Your task to perform on an android device: Open Google Maps Image 0: 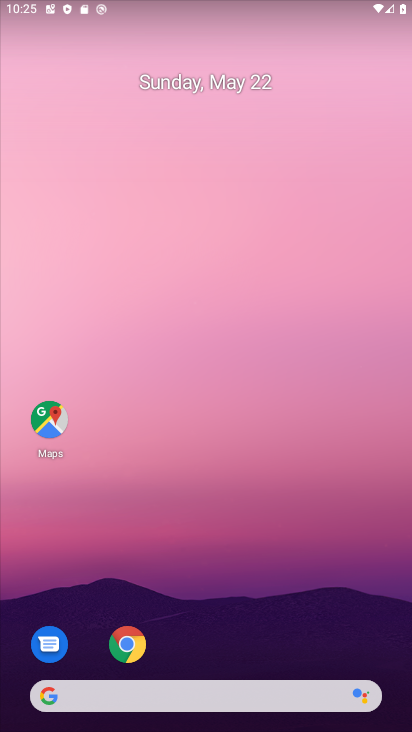
Step 0: click (52, 420)
Your task to perform on an android device: Open Google Maps Image 1: 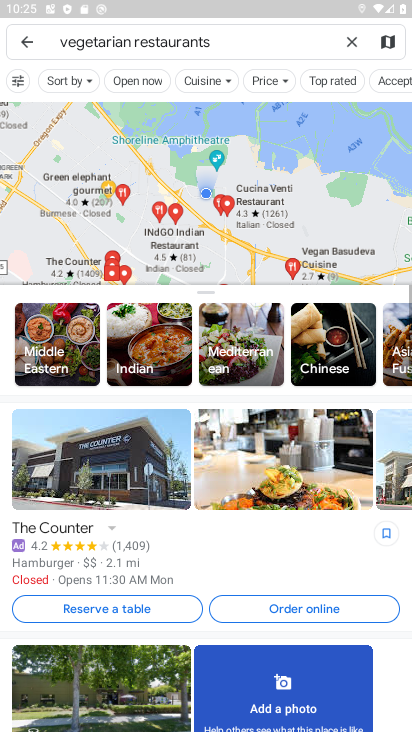
Step 1: click (352, 38)
Your task to perform on an android device: Open Google Maps Image 2: 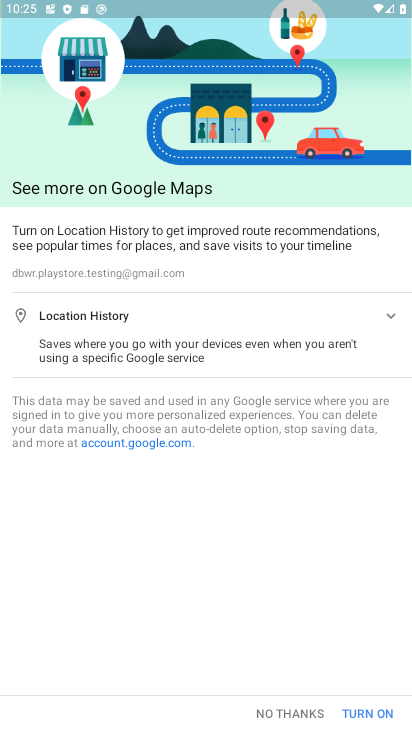
Step 2: task complete